Your task to perform on an android device: Go to Amazon Image 0: 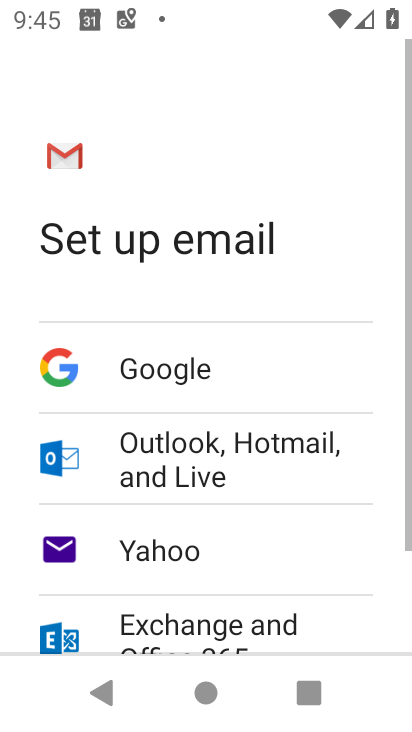
Step 0: press home button
Your task to perform on an android device: Go to Amazon Image 1: 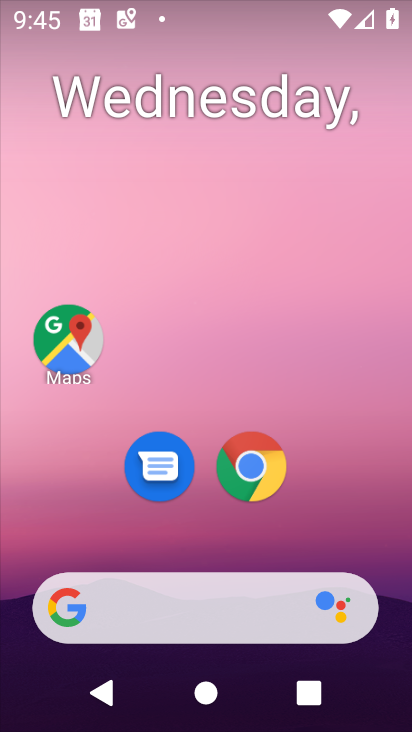
Step 1: click (242, 458)
Your task to perform on an android device: Go to Amazon Image 2: 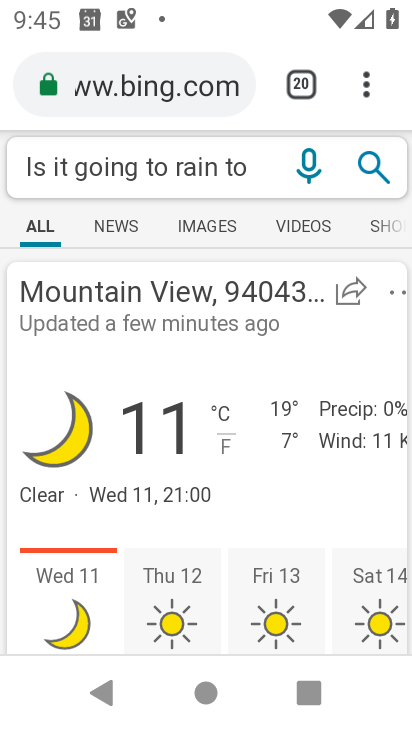
Step 2: click (348, 84)
Your task to perform on an android device: Go to Amazon Image 3: 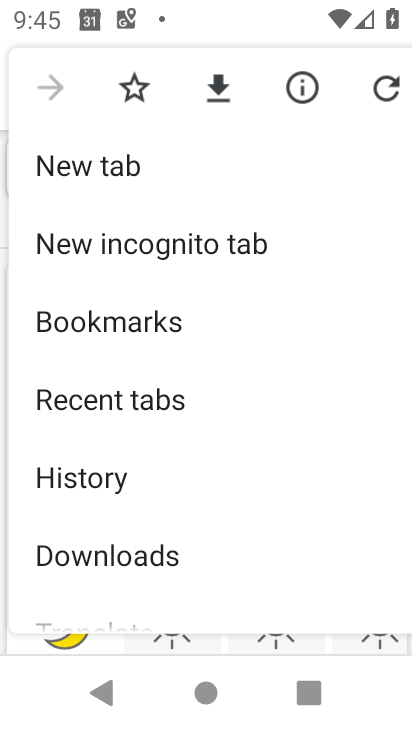
Step 3: click (67, 165)
Your task to perform on an android device: Go to Amazon Image 4: 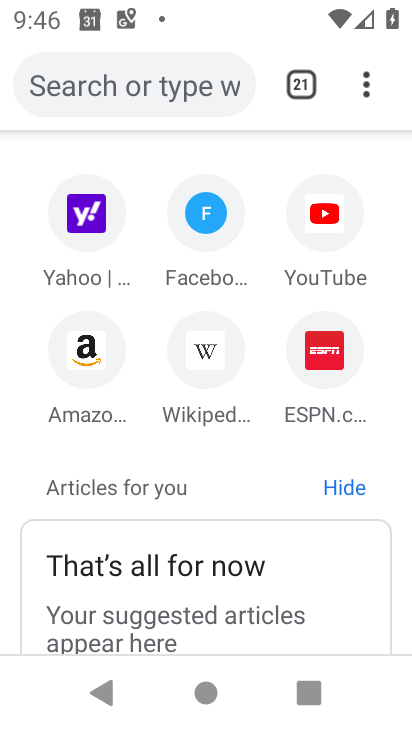
Step 4: click (72, 354)
Your task to perform on an android device: Go to Amazon Image 5: 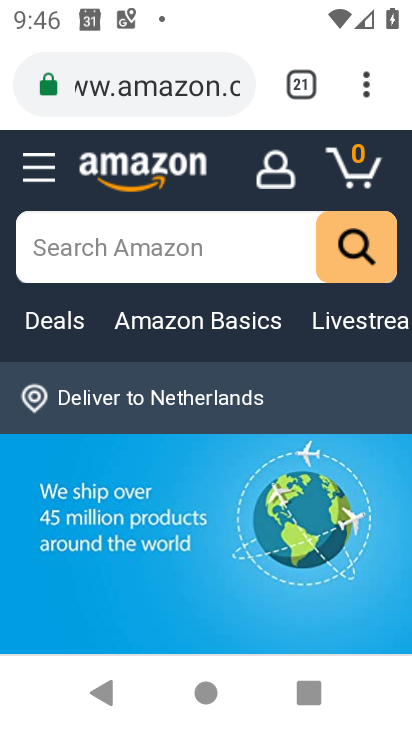
Step 5: task complete